Your task to perform on an android device: turn on improve location accuracy Image 0: 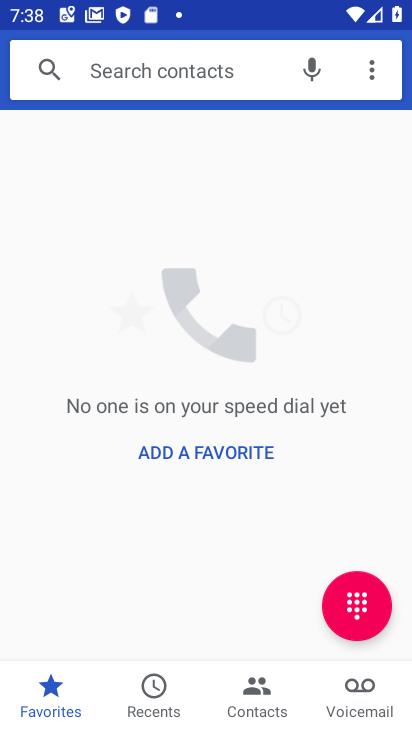
Step 0: press back button
Your task to perform on an android device: turn on improve location accuracy Image 1: 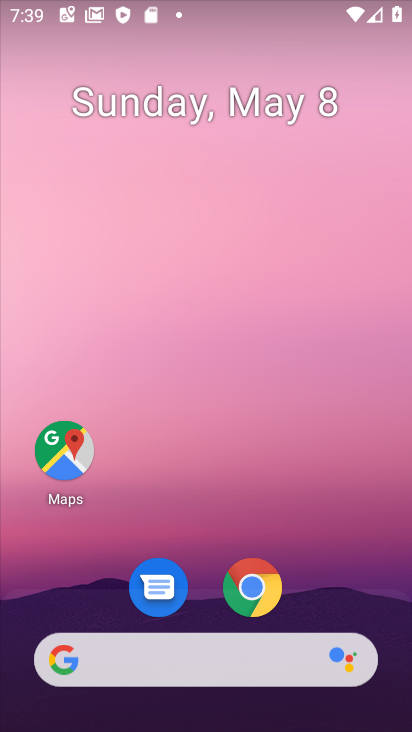
Step 1: drag from (338, 574) to (339, 7)
Your task to perform on an android device: turn on improve location accuracy Image 2: 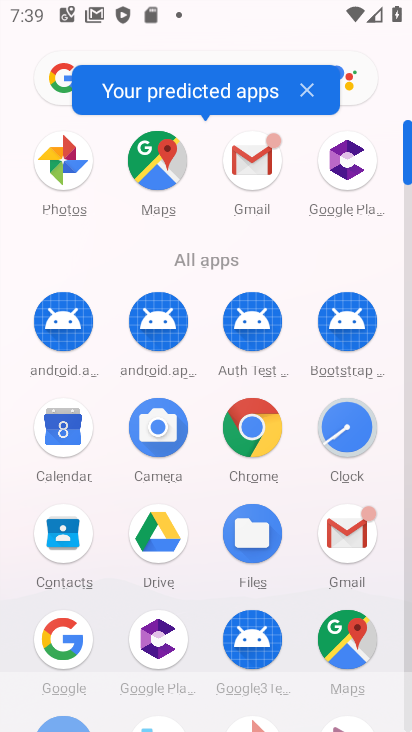
Step 2: drag from (210, 501) to (230, 196)
Your task to perform on an android device: turn on improve location accuracy Image 3: 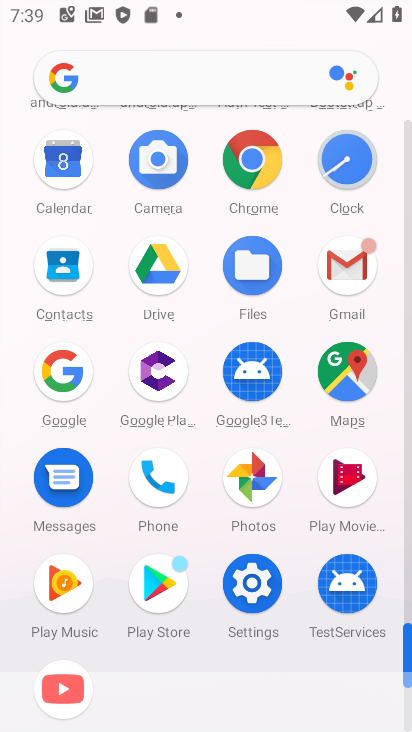
Step 3: click (252, 583)
Your task to perform on an android device: turn on improve location accuracy Image 4: 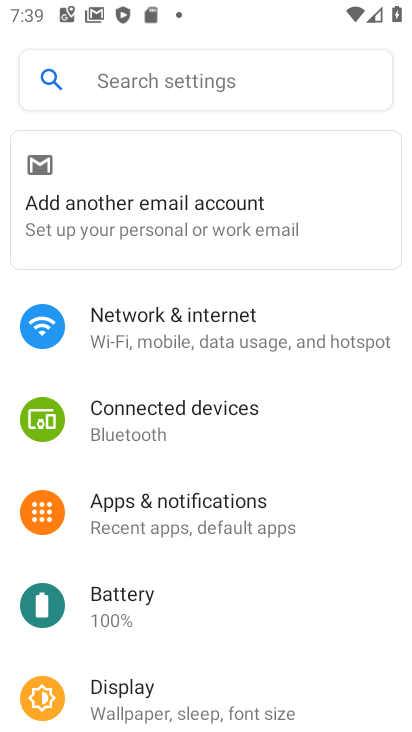
Step 4: drag from (214, 535) to (239, 405)
Your task to perform on an android device: turn on improve location accuracy Image 5: 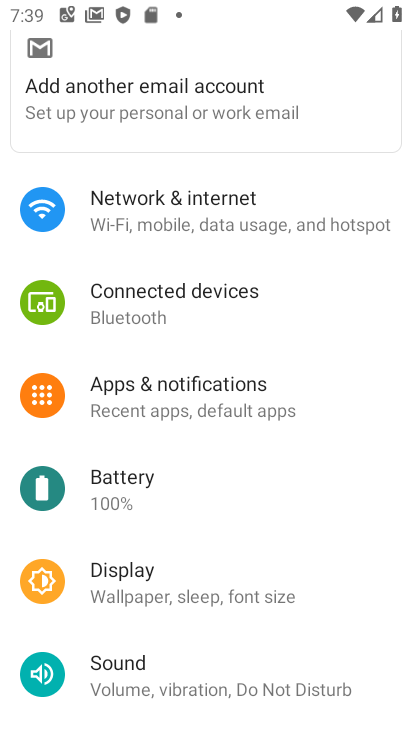
Step 5: drag from (239, 544) to (296, 451)
Your task to perform on an android device: turn on improve location accuracy Image 6: 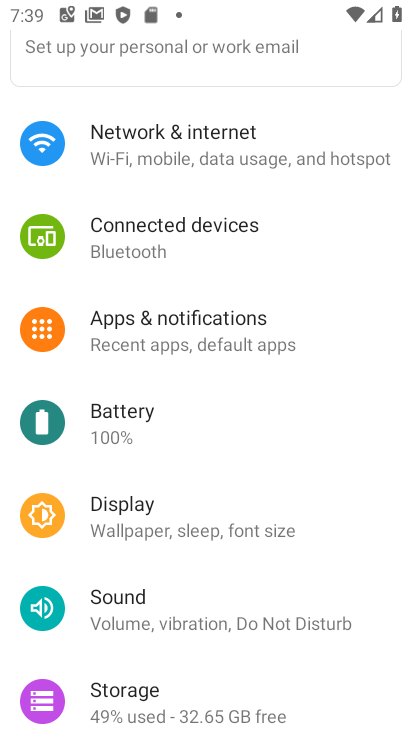
Step 6: drag from (212, 585) to (268, 500)
Your task to perform on an android device: turn on improve location accuracy Image 7: 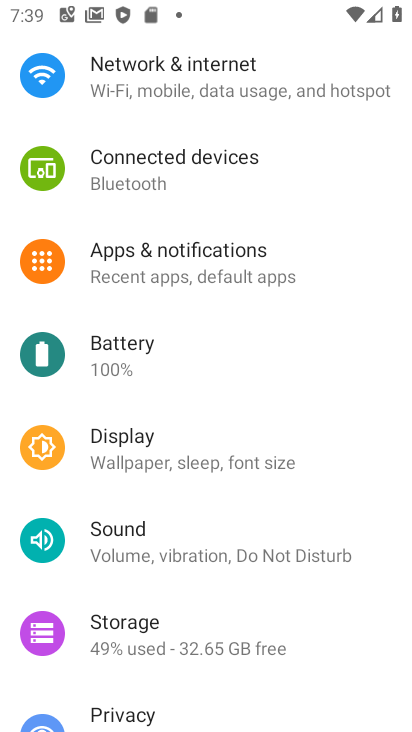
Step 7: drag from (195, 612) to (274, 510)
Your task to perform on an android device: turn on improve location accuracy Image 8: 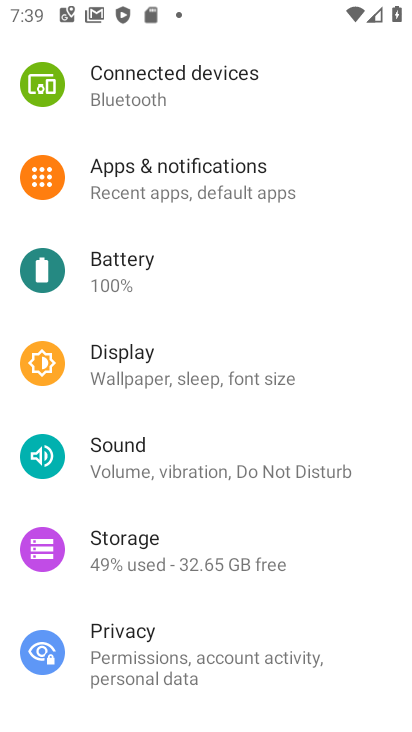
Step 8: drag from (180, 634) to (266, 493)
Your task to perform on an android device: turn on improve location accuracy Image 9: 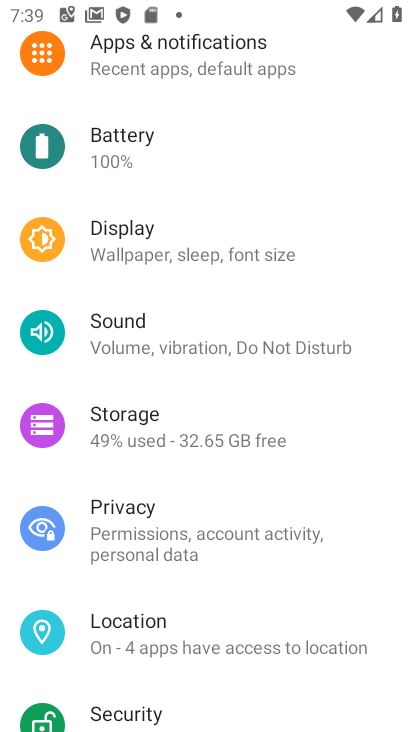
Step 9: drag from (206, 610) to (269, 506)
Your task to perform on an android device: turn on improve location accuracy Image 10: 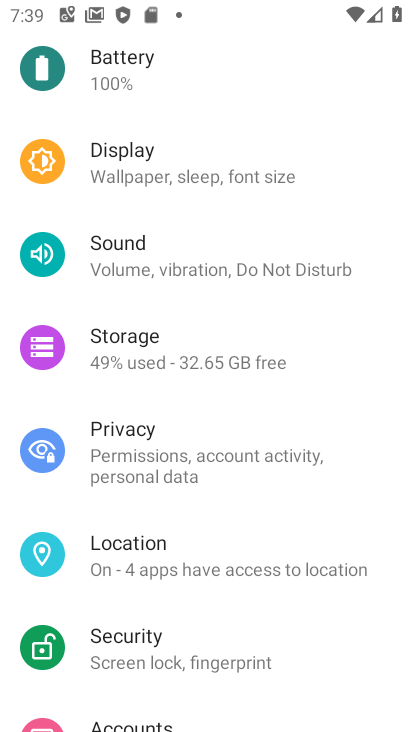
Step 10: click (139, 558)
Your task to perform on an android device: turn on improve location accuracy Image 11: 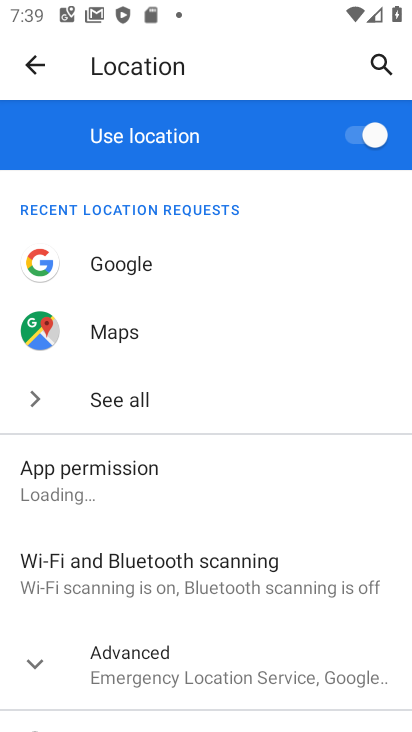
Step 11: drag from (172, 541) to (248, 425)
Your task to perform on an android device: turn on improve location accuracy Image 12: 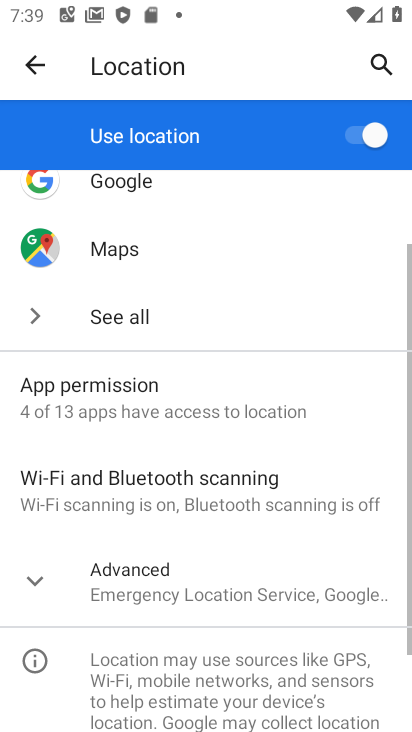
Step 12: click (192, 584)
Your task to perform on an android device: turn on improve location accuracy Image 13: 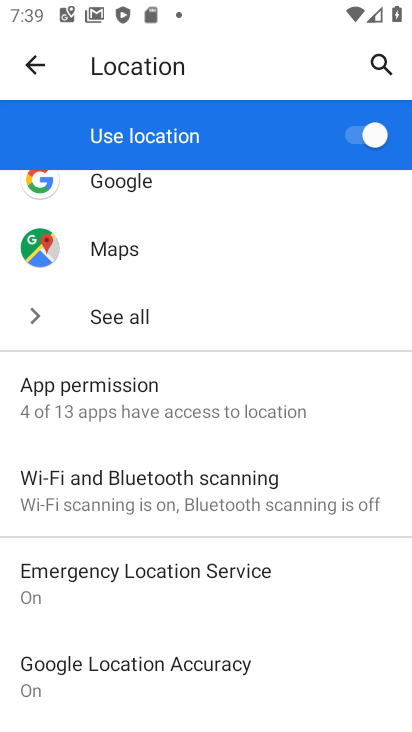
Step 13: drag from (200, 628) to (276, 522)
Your task to perform on an android device: turn on improve location accuracy Image 14: 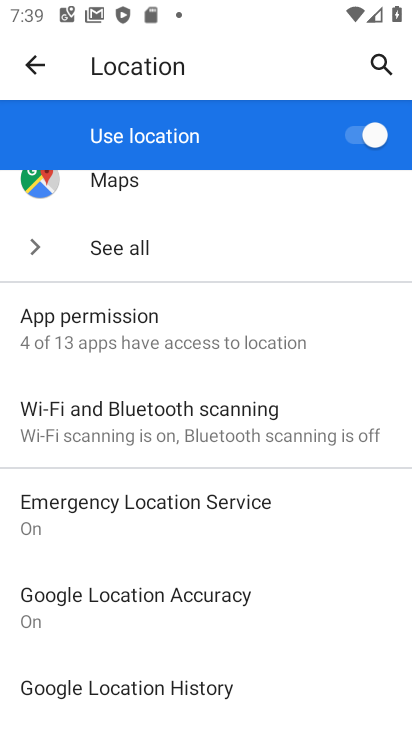
Step 14: click (235, 595)
Your task to perform on an android device: turn on improve location accuracy Image 15: 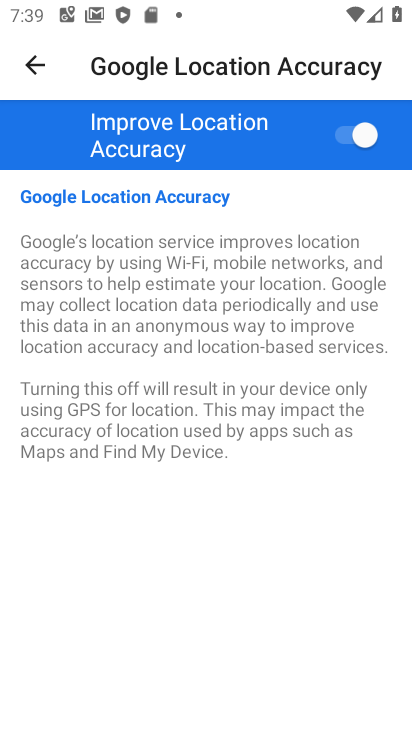
Step 15: task complete